Your task to perform on an android device: change alarm snooze length Image 0: 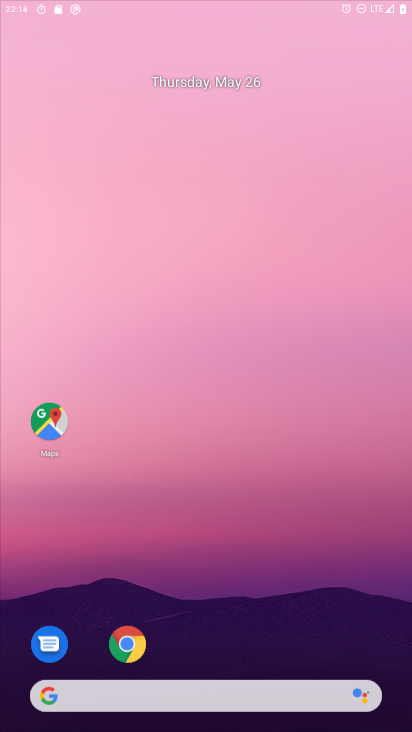
Step 0: click (237, 198)
Your task to perform on an android device: change alarm snooze length Image 1: 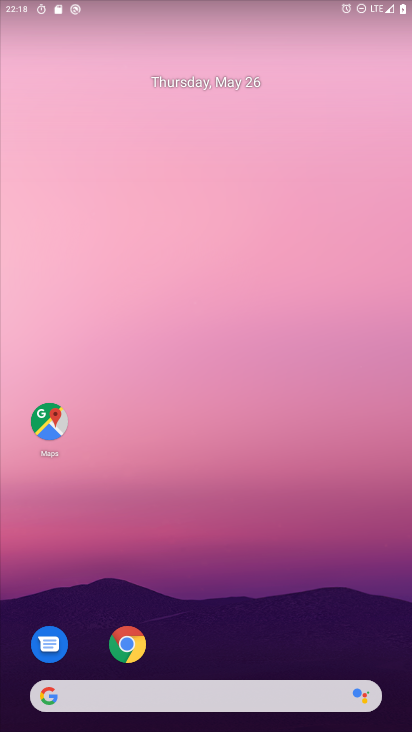
Step 1: drag from (190, 670) to (217, 303)
Your task to perform on an android device: change alarm snooze length Image 2: 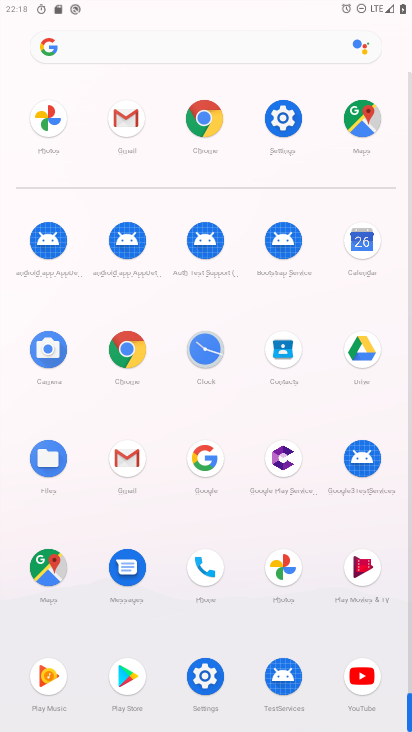
Step 2: click (278, 124)
Your task to perform on an android device: change alarm snooze length Image 3: 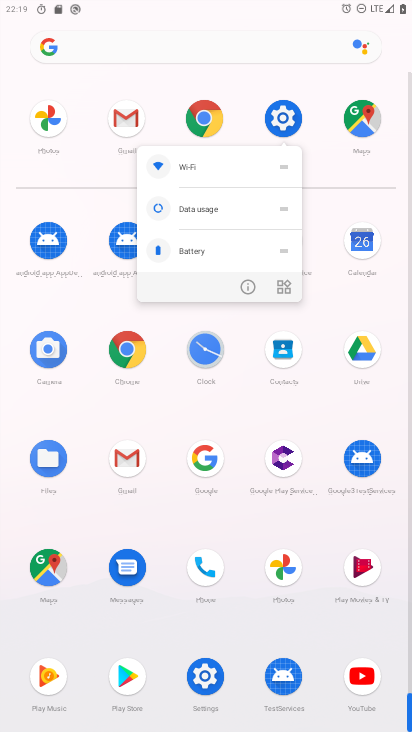
Step 3: click (246, 292)
Your task to perform on an android device: change alarm snooze length Image 4: 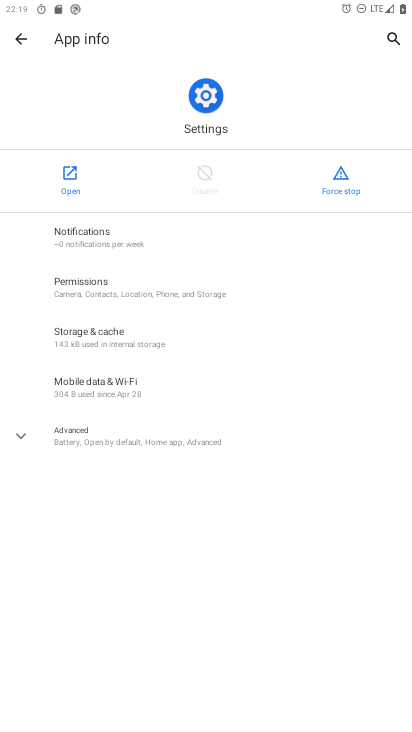
Step 4: press home button
Your task to perform on an android device: change alarm snooze length Image 5: 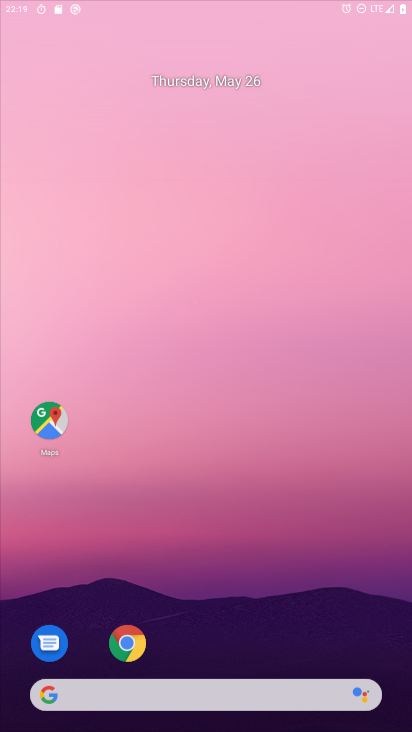
Step 5: drag from (208, 606) to (292, 23)
Your task to perform on an android device: change alarm snooze length Image 6: 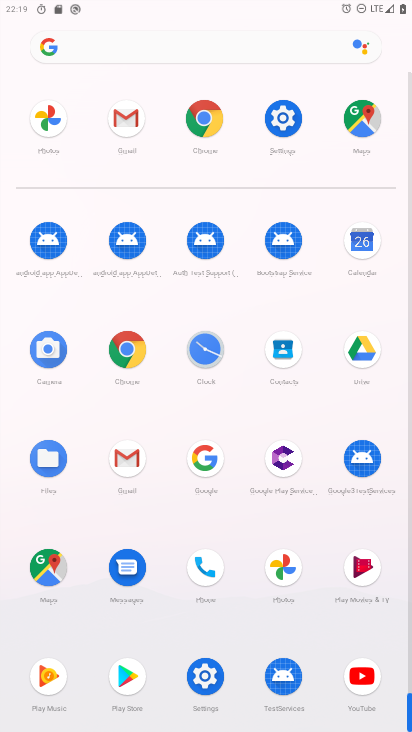
Step 6: click (208, 356)
Your task to perform on an android device: change alarm snooze length Image 7: 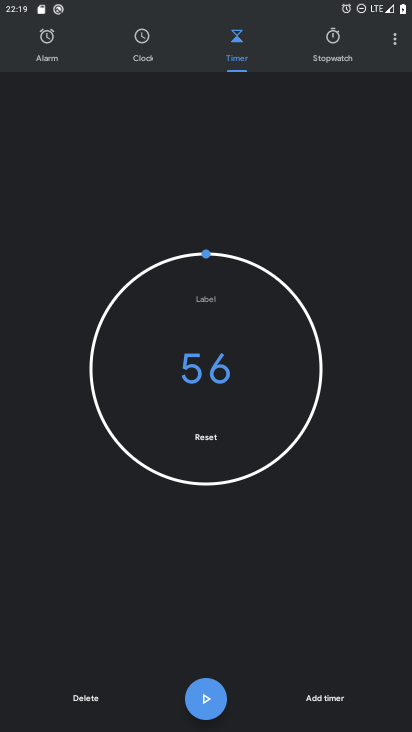
Step 7: click (390, 41)
Your task to perform on an android device: change alarm snooze length Image 8: 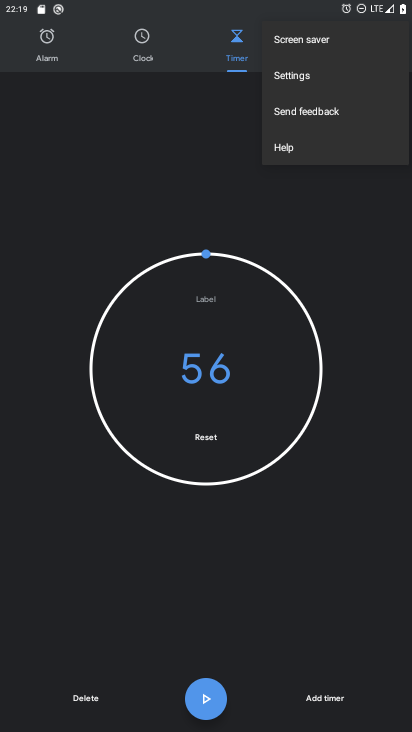
Step 8: click (316, 72)
Your task to perform on an android device: change alarm snooze length Image 9: 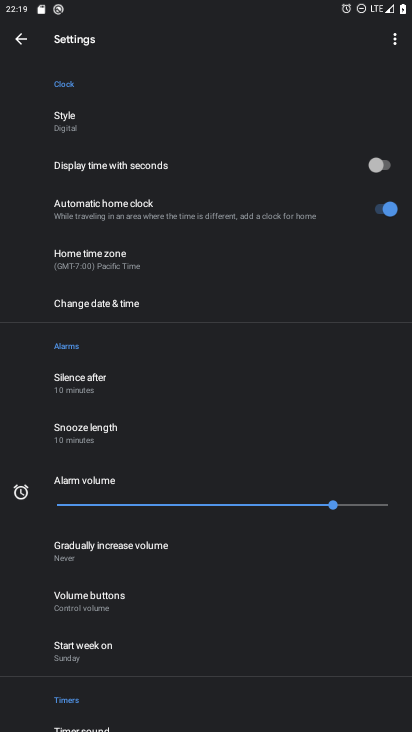
Step 9: click (132, 442)
Your task to perform on an android device: change alarm snooze length Image 10: 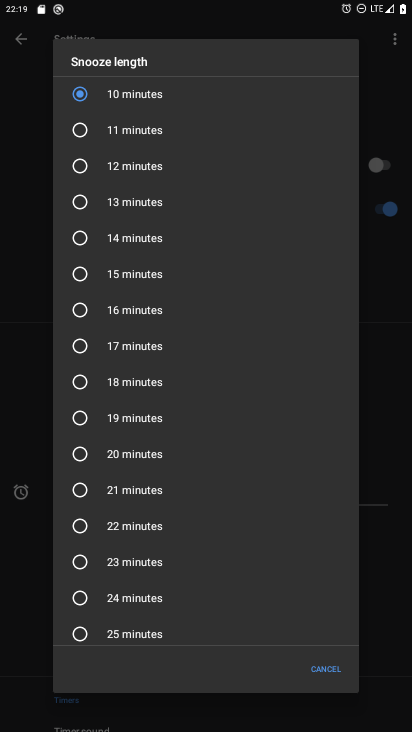
Step 10: task complete